Your task to perform on an android device: delete a single message in the gmail app Image 0: 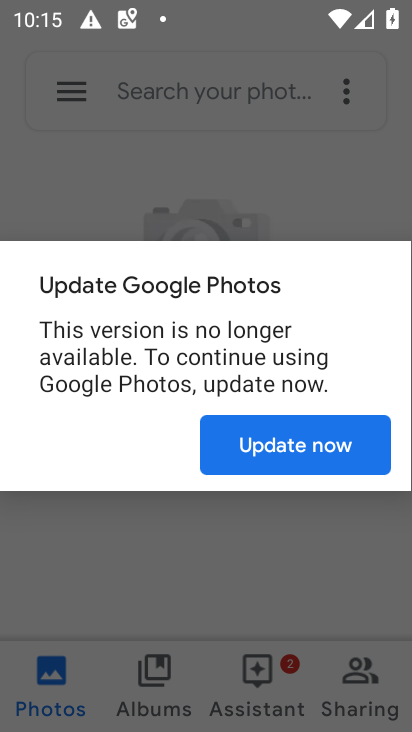
Step 0: press home button
Your task to perform on an android device: delete a single message in the gmail app Image 1: 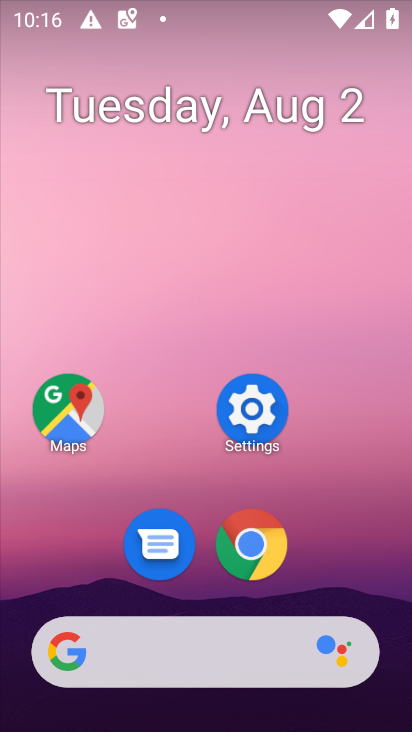
Step 1: drag from (245, 674) to (281, 133)
Your task to perform on an android device: delete a single message in the gmail app Image 2: 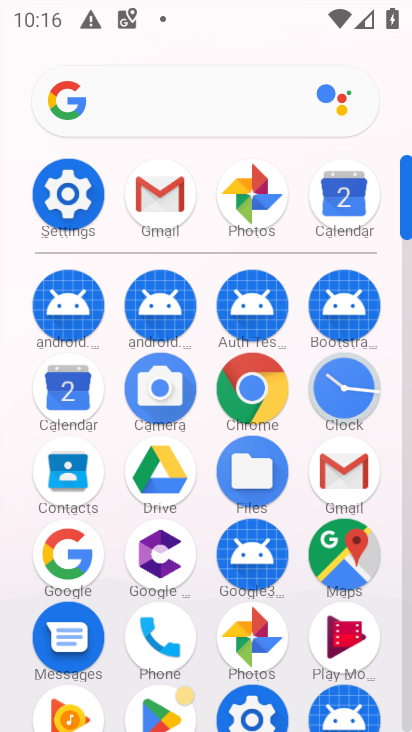
Step 2: click (151, 203)
Your task to perform on an android device: delete a single message in the gmail app Image 3: 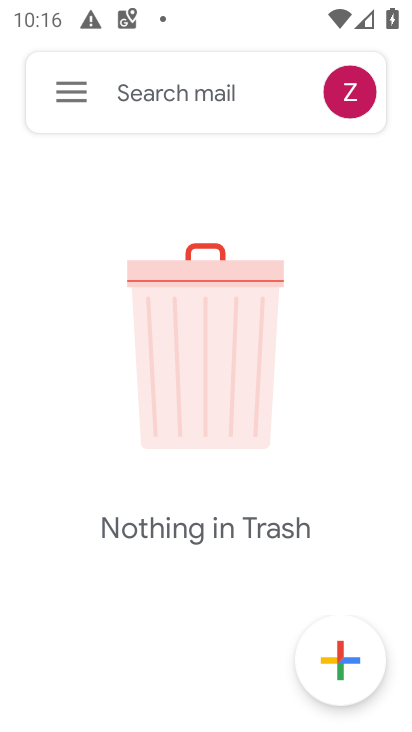
Step 3: click (78, 96)
Your task to perform on an android device: delete a single message in the gmail app Image 4: 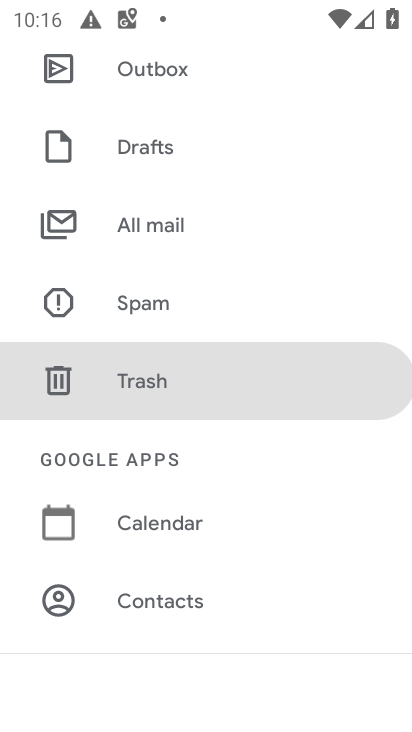
Step 4: click (168, 212)
Your task to perform on an android device: delete a single message in the gmail app Image 5: 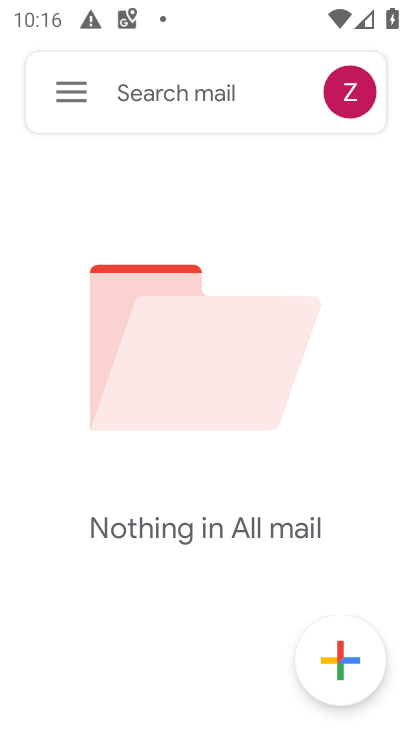
Step 5: task complete